Your task to perform on an android device: open wifi settings Image 0: 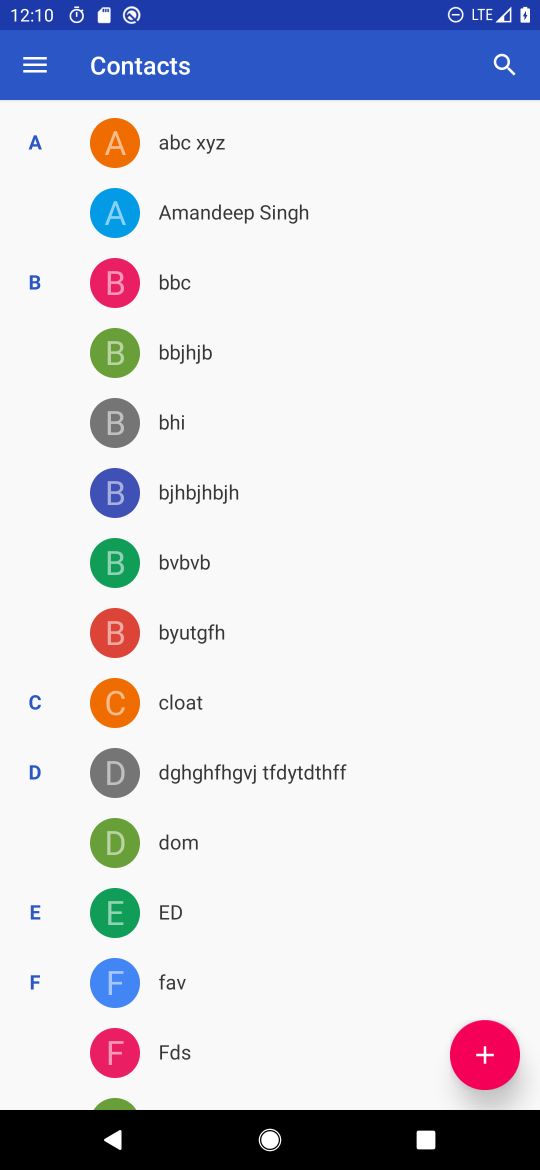
Step 0: press home button
Your task to perform on an android device: open wifi settings Image 1: 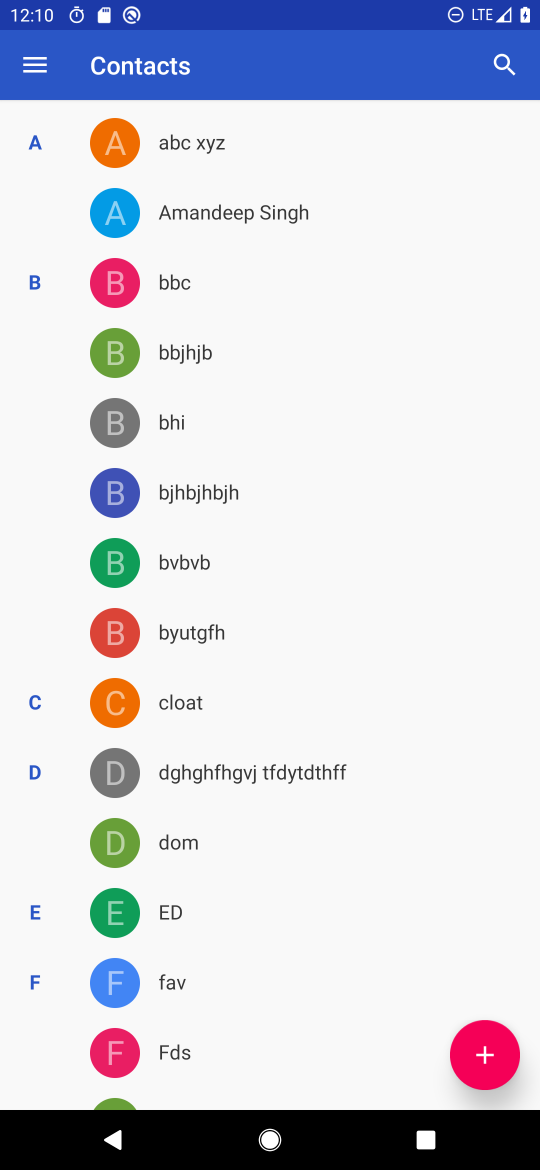
Step 1: press home button
Your task to perform on an android device: open wifi settings Image 2: 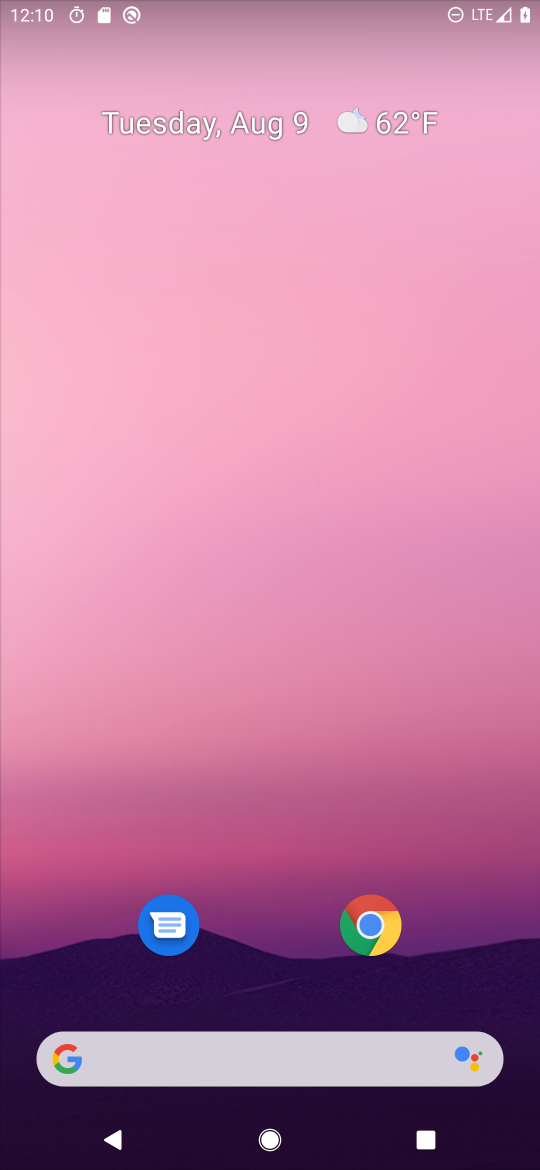
Step 2: drag from (253, 837) to (276, 133)
Your task to perform on an android device: open wifi settings Image 3: 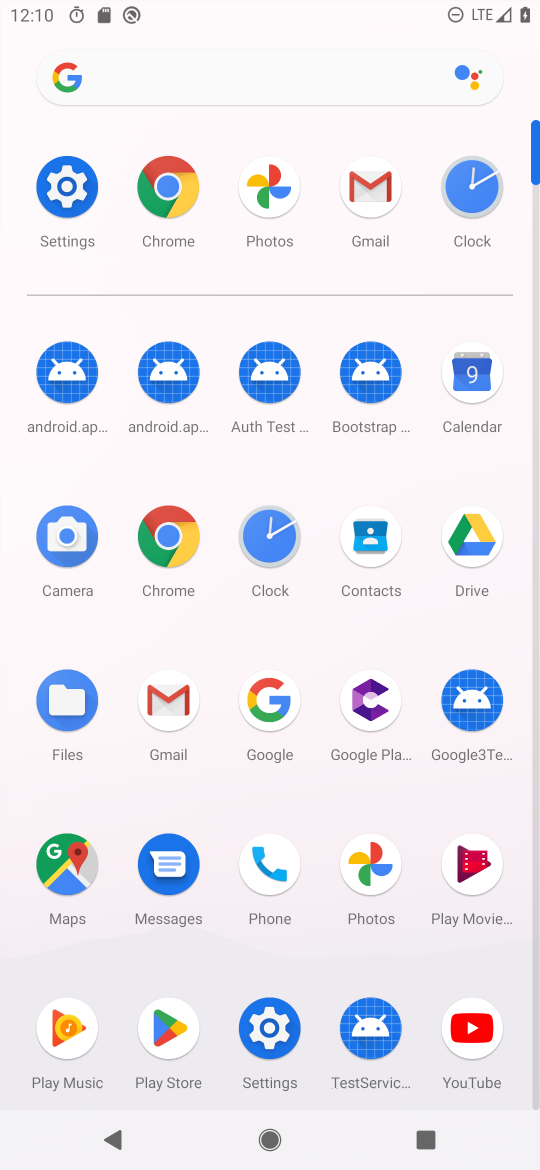
Step 3: click (52, 190)
Your task to perform on an android device: open wifi settings Image 4: 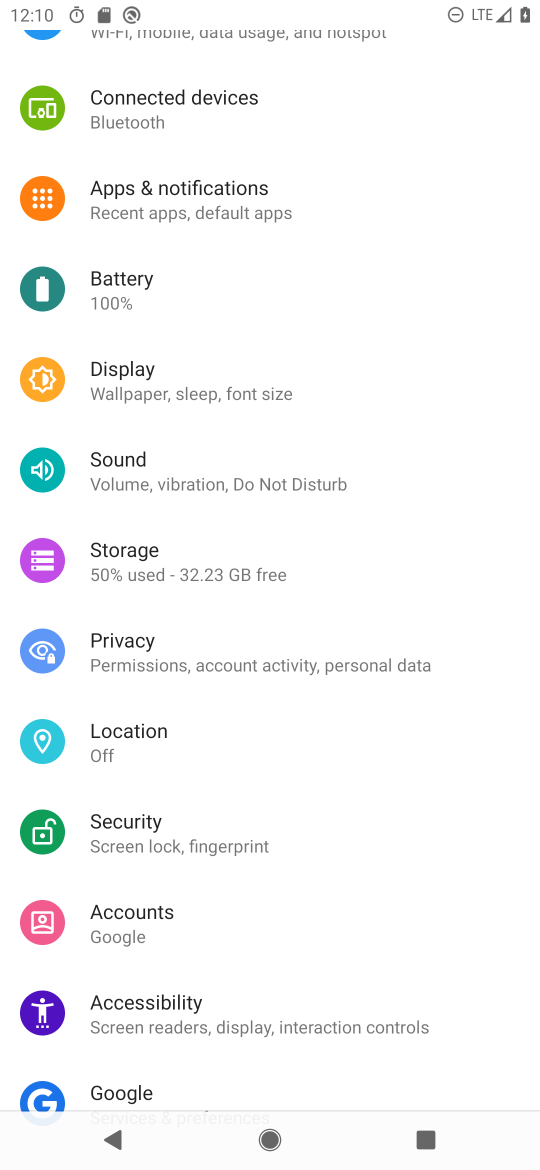
Step 4: drag from (250, 215) to (253, 1026)
Your task to perform on an android device: open wifi settings Image 5: 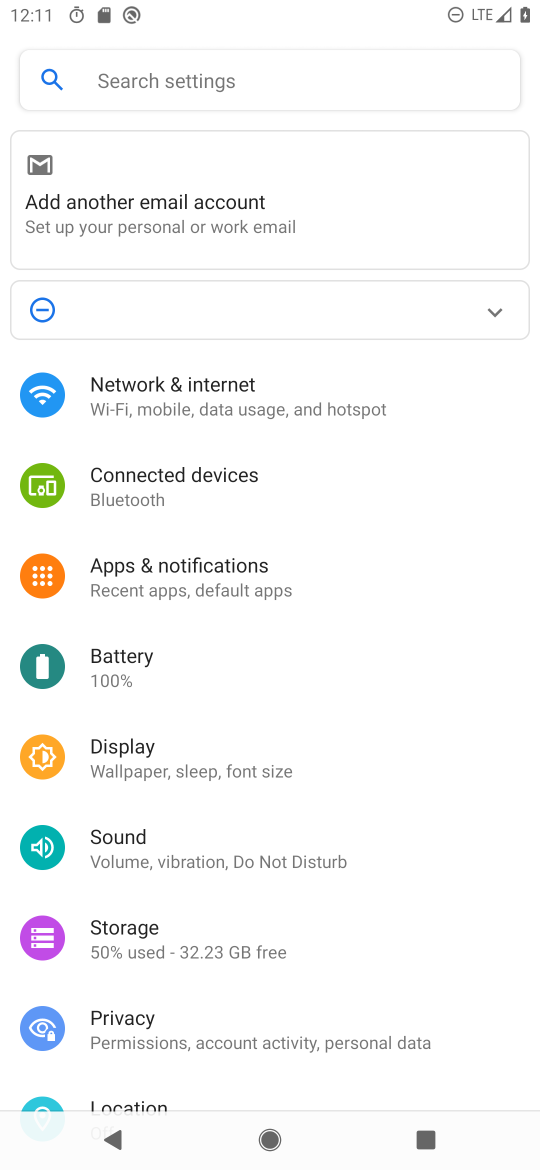
Step 5: click (156, 411)
Your task to perform on an android device: open wifi settings Image 6: 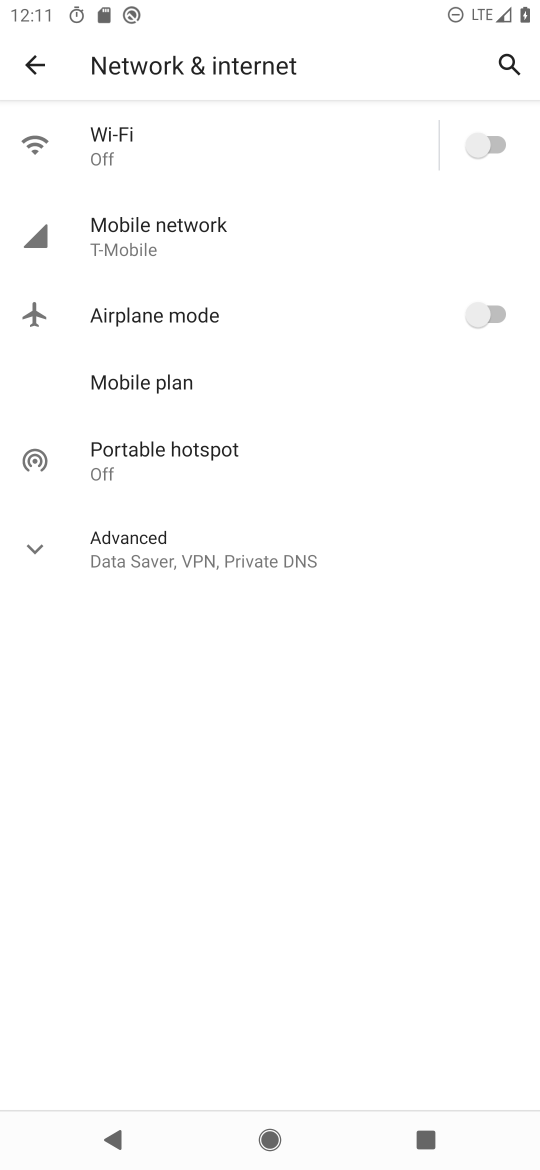
Step 6: click (314, 145)
Your task to perform on an android device: open wifi settings Image 7: 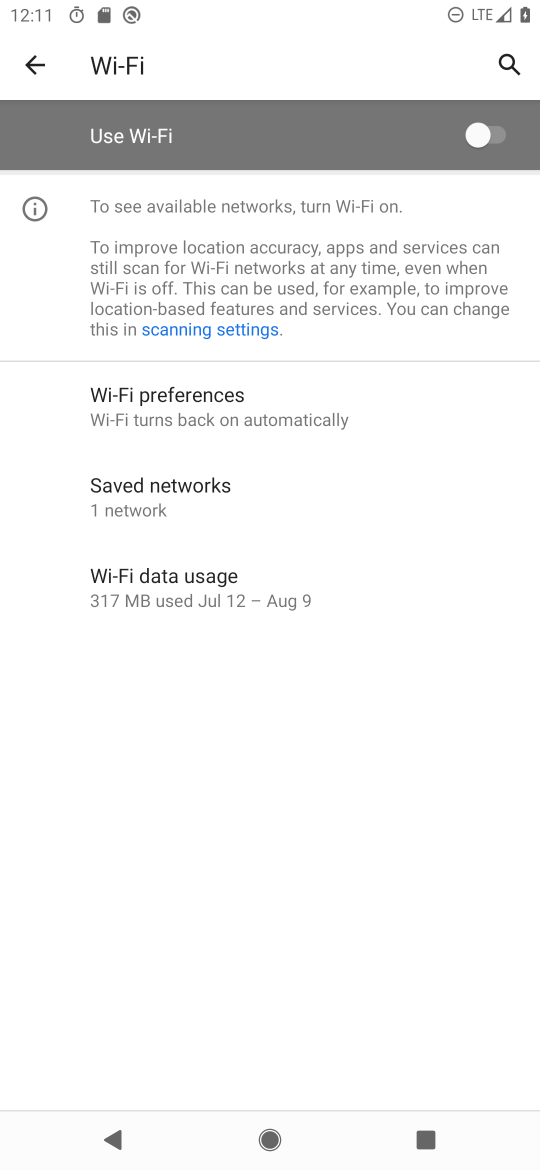
Step 7: click (450, 140)
Your task to perform on an android device: open wifi settings Image 8: 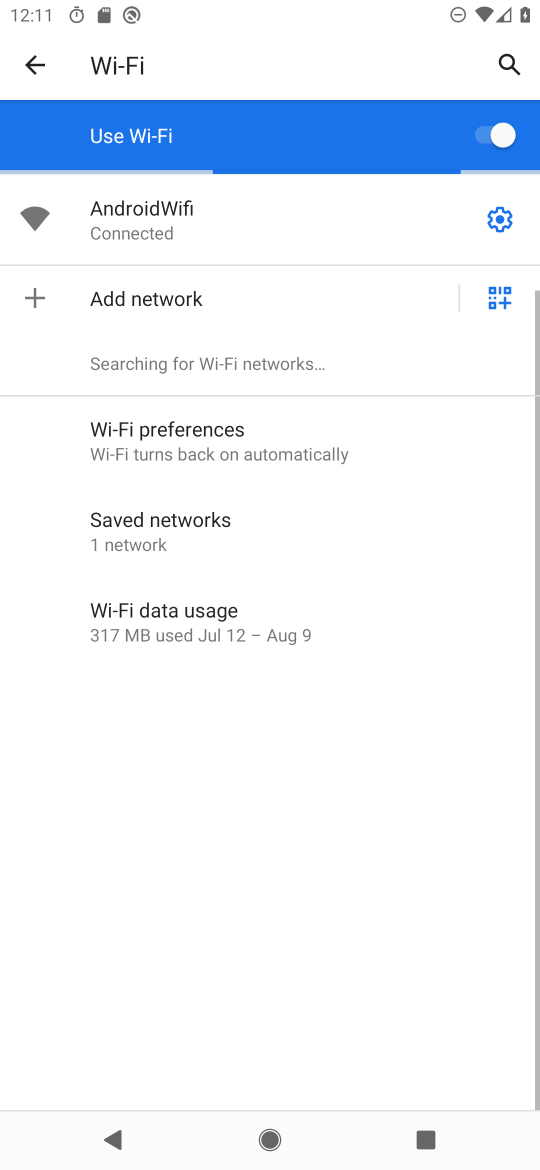
Step 8: click (505, 217)
Your task to perform on an android device: open wifi settings Image 9: 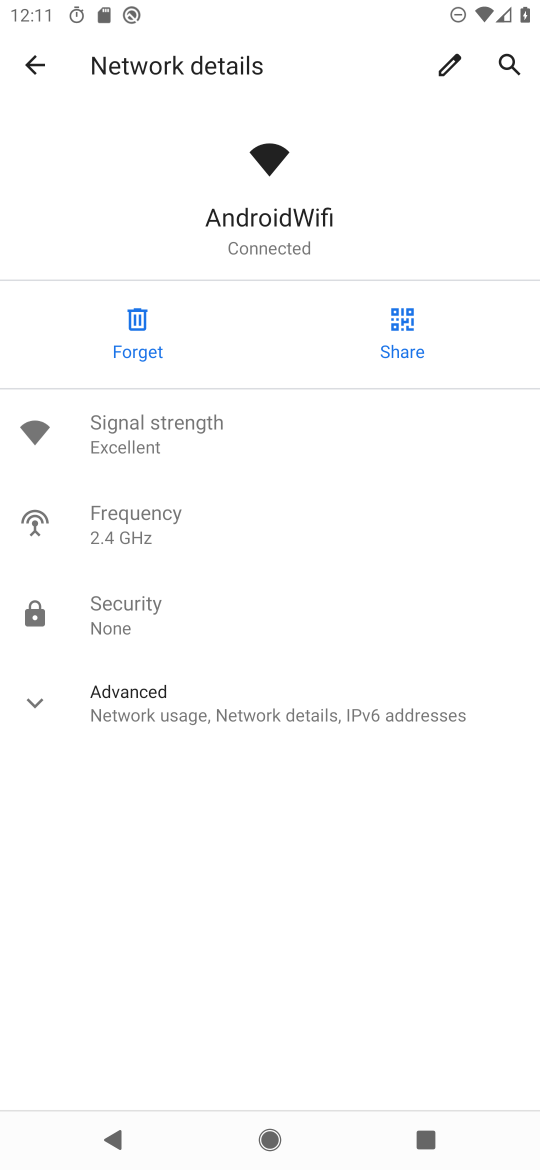
Step 9: task complete